Your task to perform on an android device: turn off priority inbox in the gmail app Image 0: 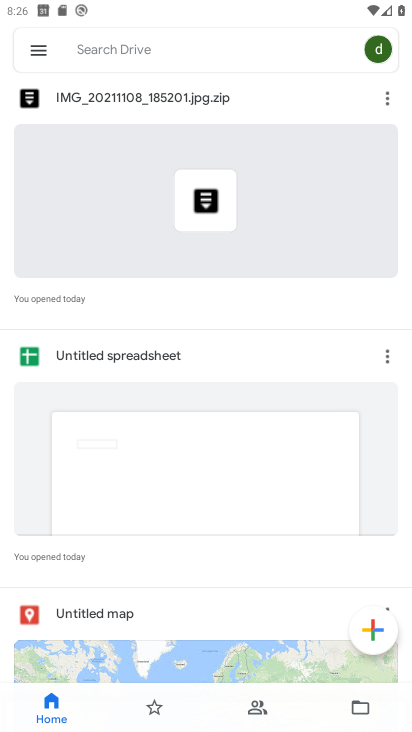
Step 0: press home button
Your task to perform on an android device: turn off priority inbox in the gmail app Image 1: 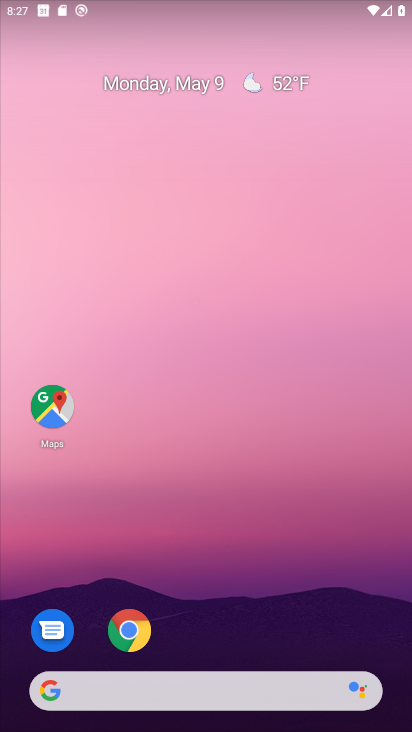
Step 1: drag from (241, 636) to (229, 13)
Your task to perform on an android device: turn off priority inbox in the gmail app Image 2: 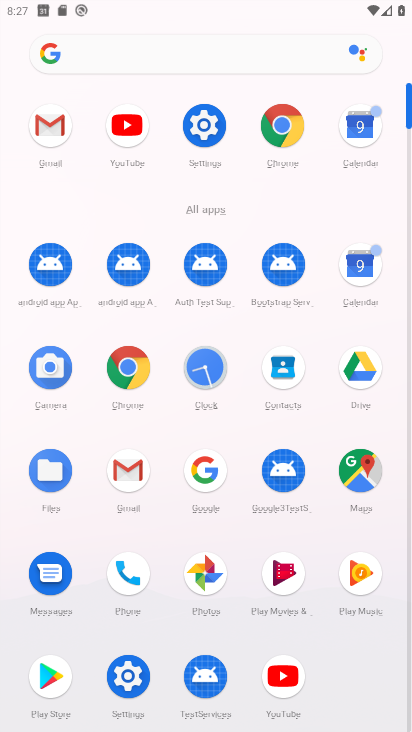
Step 2: click (127, 505)
Your task to perform on an android device: turn off priority inbox in the gmail app Image 3: 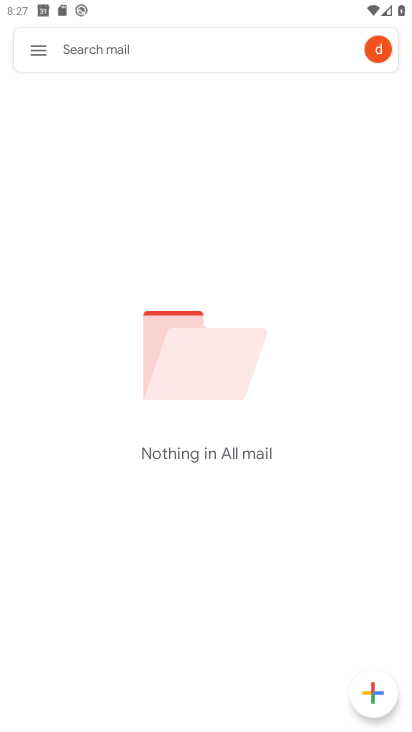
Step 3: click (42, 59)
Your task to perform on an android device: turn off priority inbox in the gmail app Image 4: 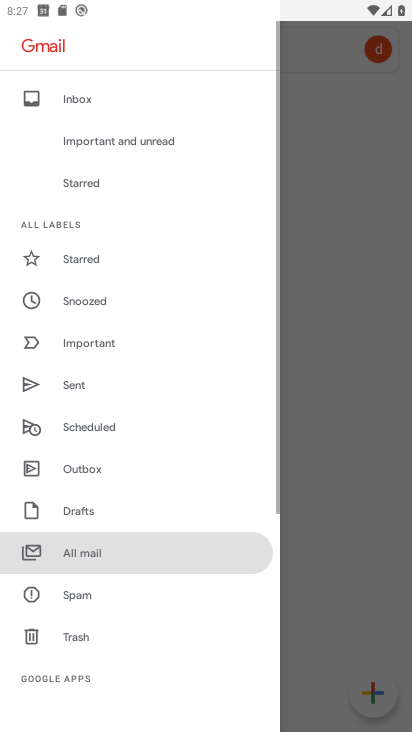
Step 4: drag from (95, 644) to (183, 104)
Your task to perform on an android device: turn off priority inbox in the gmail app Image 5: 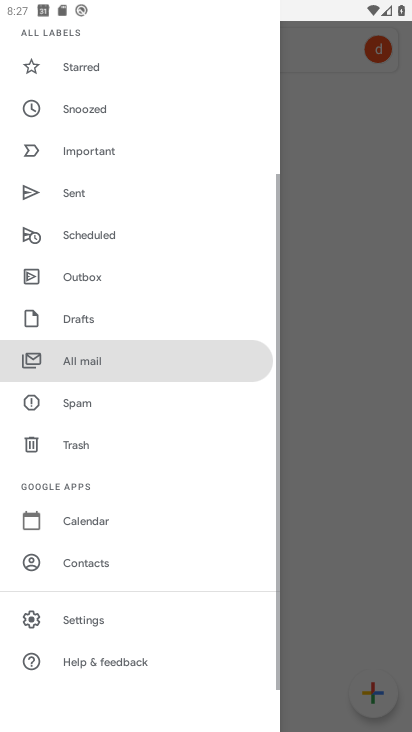
Step 5: click (94, 634)
Your task to perform on an android device: turn off priority inbox in the gmail app Image 6: 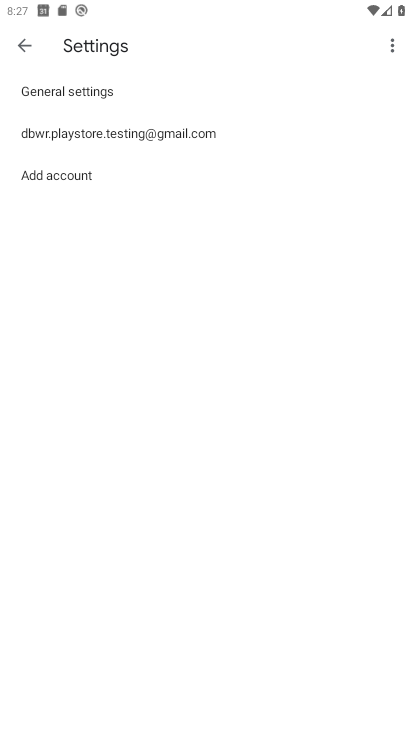
Step 6: click (88, 139)
Your task to perform on an android device: turn off priority inbox in the gmail app Image 7: 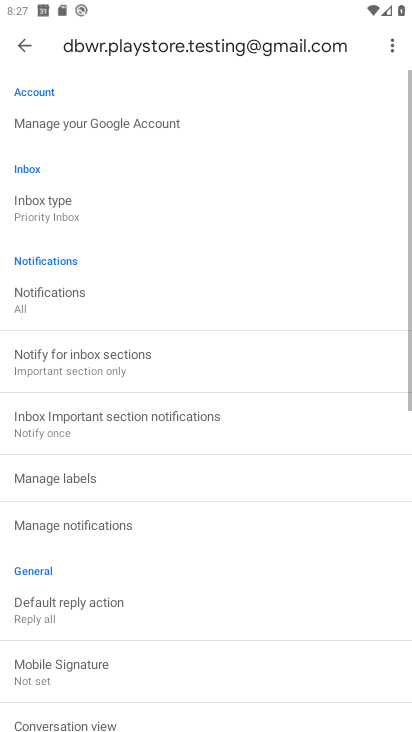
Step 7: click (81, 215)
Your task to perform on an android device: turn off priority inbox in the gmail app Image 8: 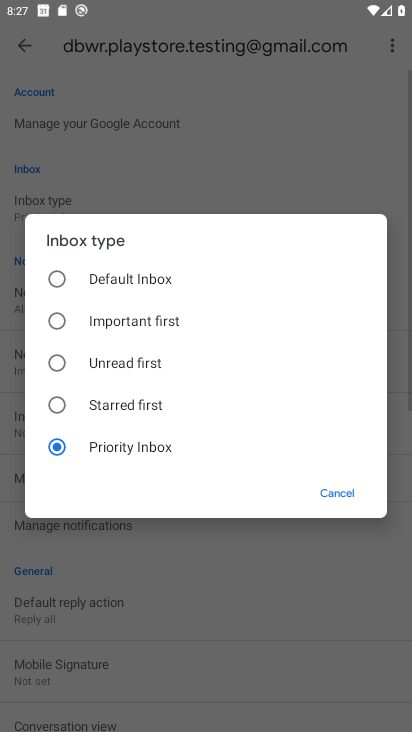
Step 8: click (90, 284)
Your task to perform on an android device: turn off priority inbox in the gmail app Image 9: 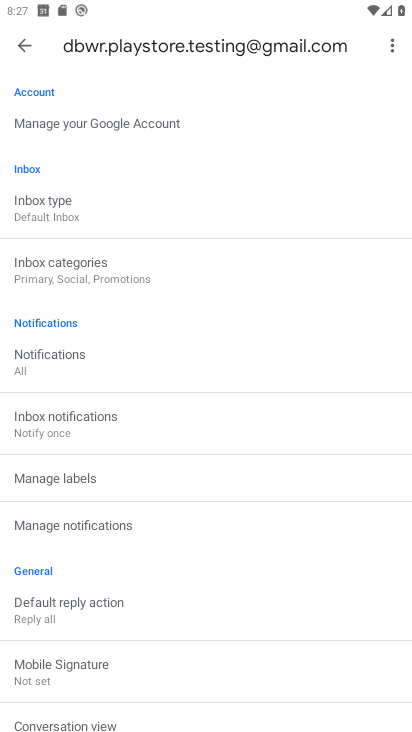
Step 9: task complete